Your task to perform on an android device: change the clock display to show seconds Image 0: 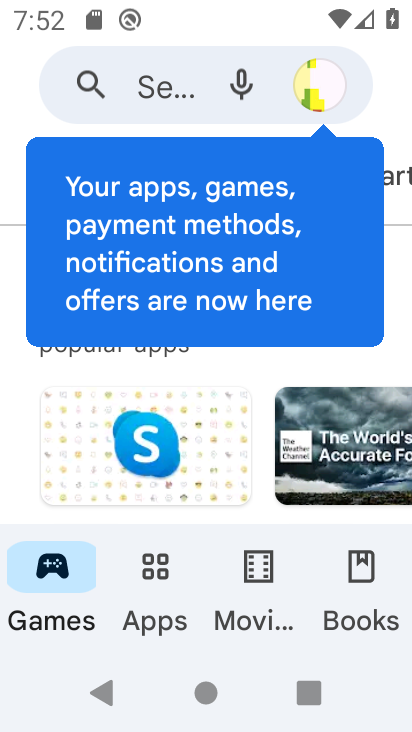
Step 0: press home button
Your task to perform on an android device: change the clock display to show seconds Image 1: 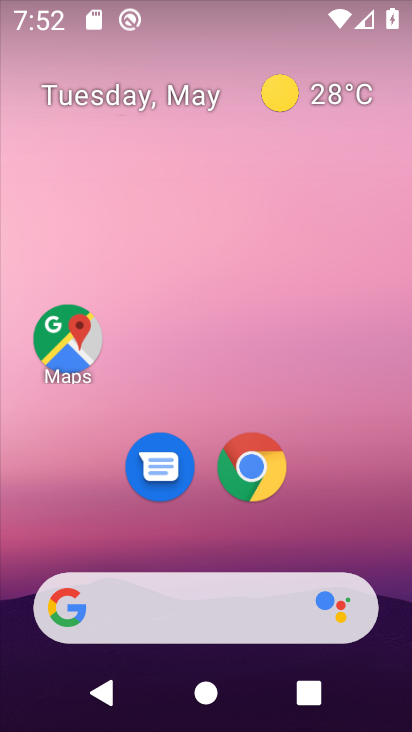
Step 1: click (353, 176)
Your task to perform on an android device: change the clock display to show seconds Image 2: 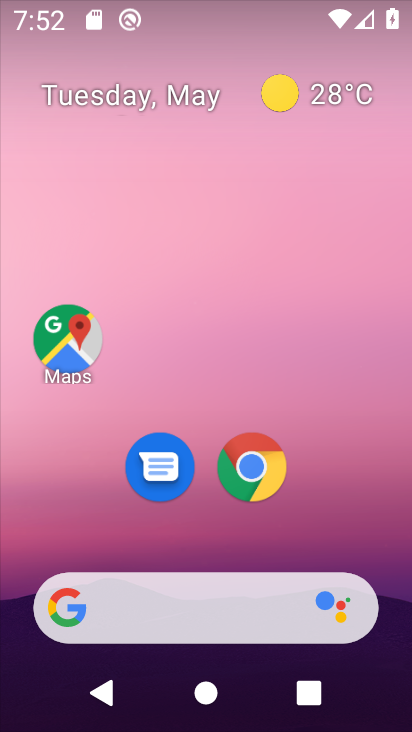
Step 2: drag from (400, 712) to (338, 191)
Your task to perform on an android device: change the clock display to show seconds Image 3: 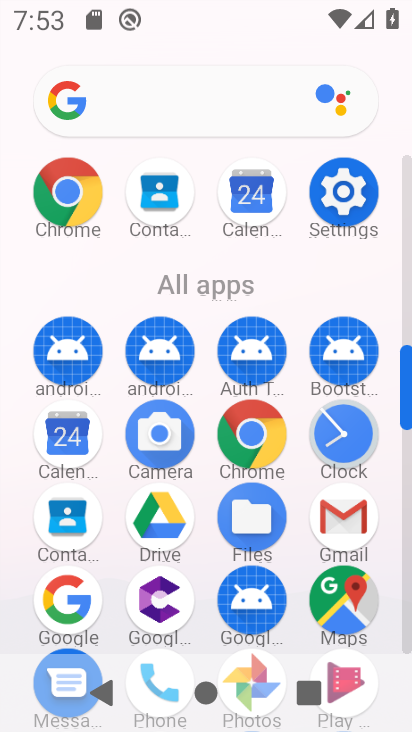
Step 3: click (338, 431)
Your task to perform on an android device: change the clock display to show seconds Image 4: 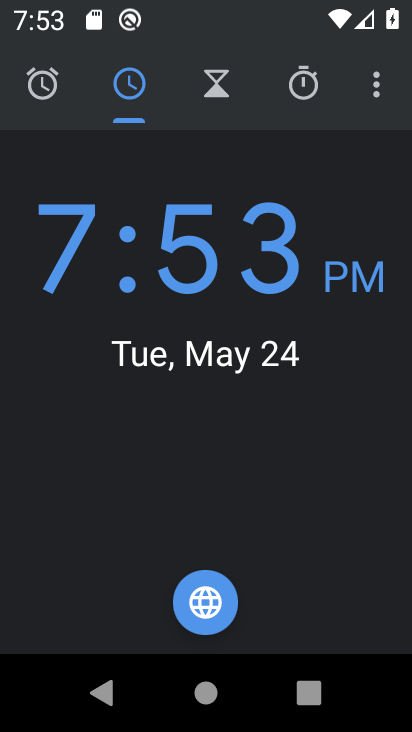
Step 4: click (372, 87)
Your task to perform on an android device: change the clock display to show seconds Image 5: 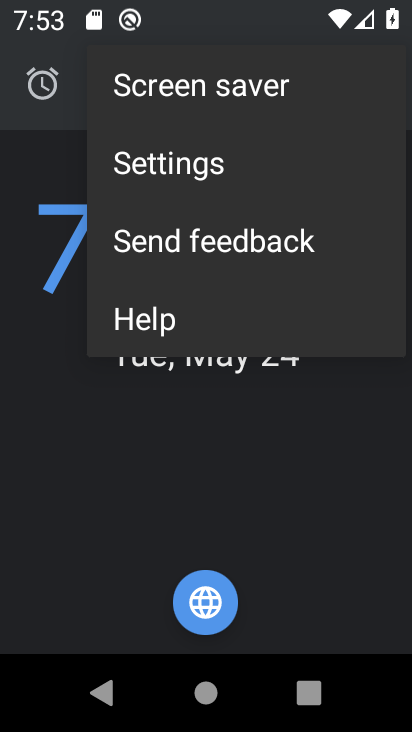
Step 5: click (192, 167)
Your task to perform on an android device: change the clock display to show seconds Image 6: 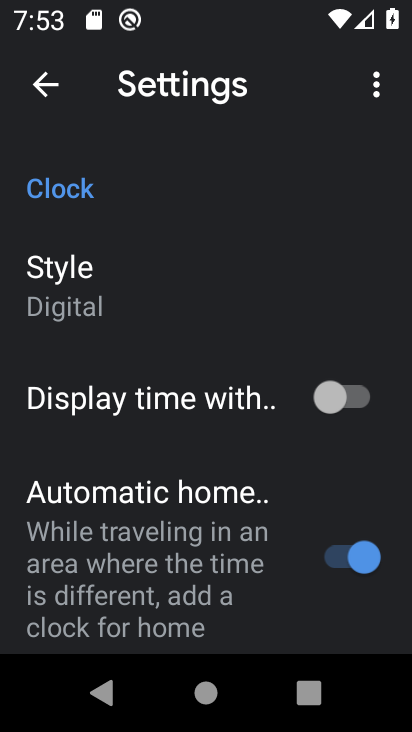
Step 6: click (42, 284)
Your task to perform on an android device: change the clock display to show seconds Image 7: 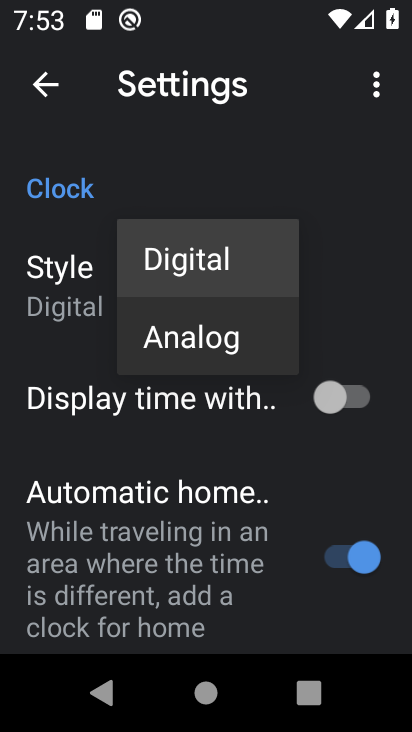
Step 7: click (358, 390)
Your task to perform on an android device: change the clock display to show seconds Image 8: 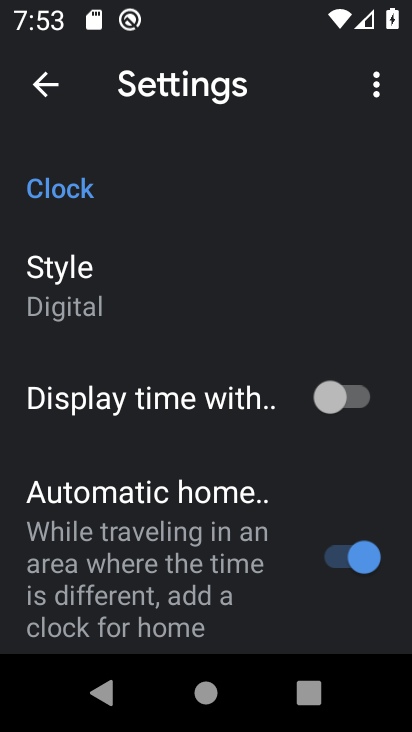
Step 8: click (358, 394)
Your task to perform on an android device: change the clock display to show seconds Image 9: 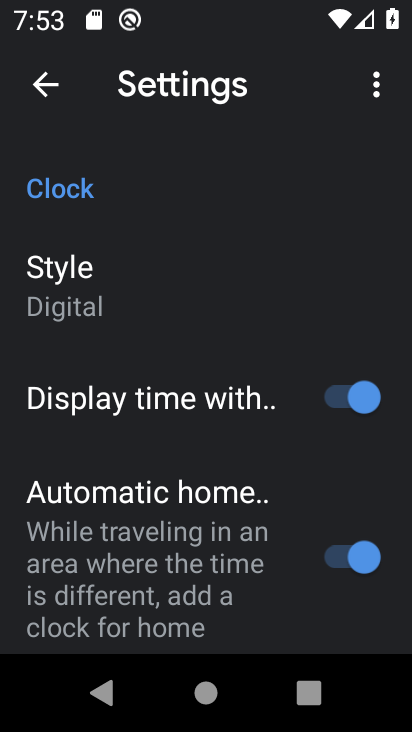
Step 9: task complete